Your task to perform on an android device: Turn on the flashlight Image 0: 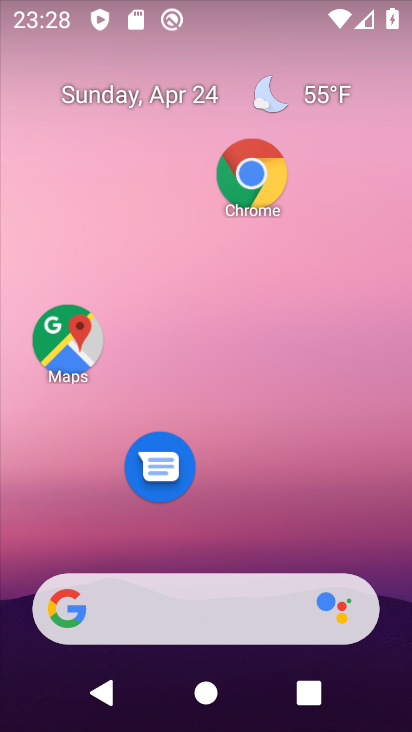
Step 0: drag from (304, 521) to (309, 46)
Your task to perform on an android device: Turn on the flashlight Image 1: 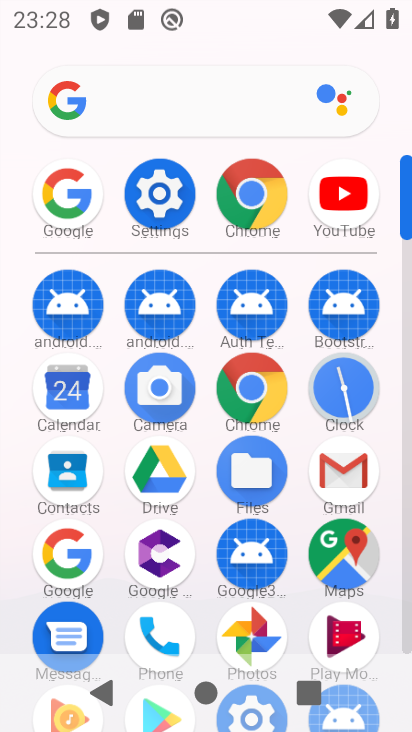
Step 1: click (164, 196)
Your task to perform on an android device: Turn on the flashlight Image 2: 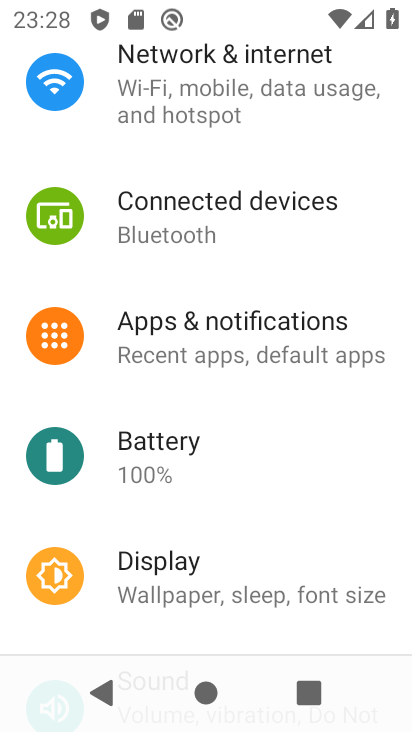
Step 2: drag from (174, 115) to (207, 479)
Your task to perform on an android device: Turn on the flashlight Image 3: 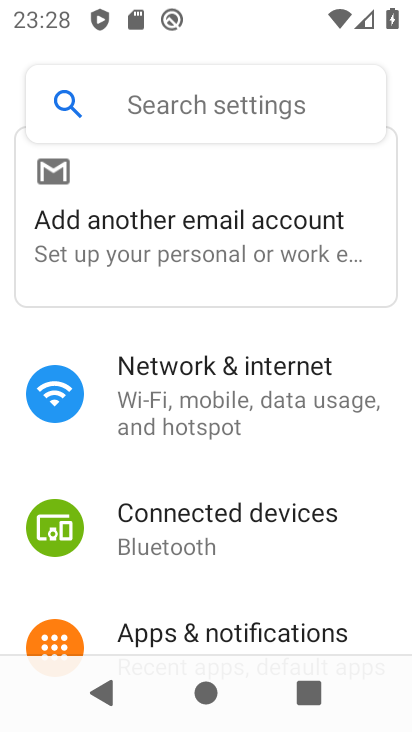
Step 3: click (188, 108)
Your task to perform on an android device: Turn on the flashlight Image 4: 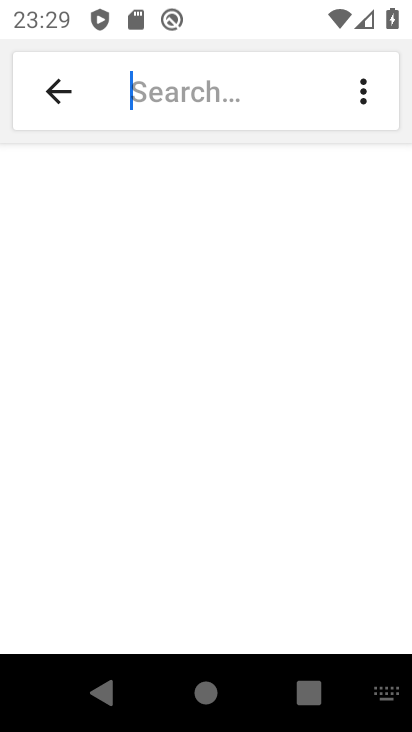
Step 4: type "flashlight"
Your task to perform on an android device: Turn on the flashlight Image 5: 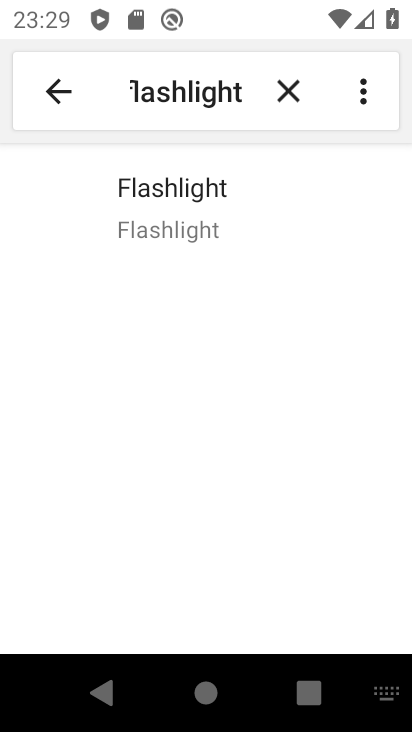
Step 5: task complete